Your task to perform on an android device: What's on my calendar today? Image 0: 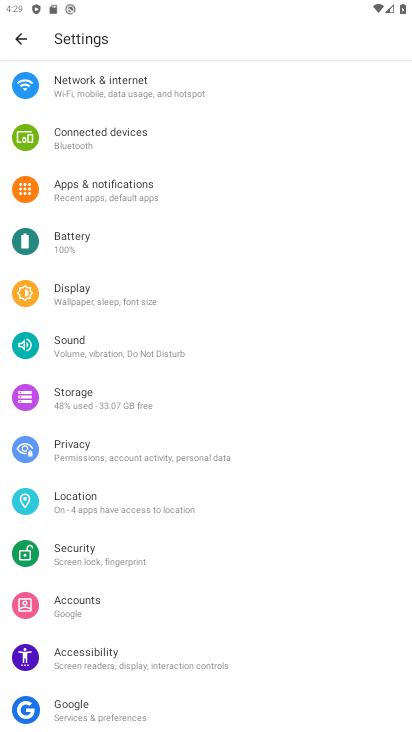
Step 0: press home button
Your task to perform on an android device: What's on my calendar today? Image 1: 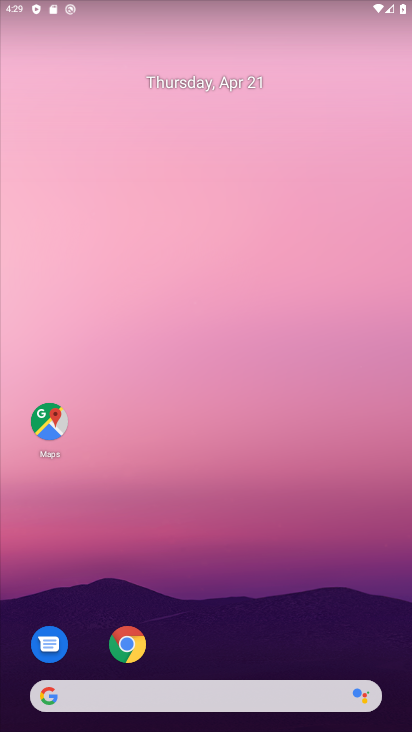
Step 1: drag from (231, 671) to (237, 308)
Your task to perform on an android device: What's on my calendar today? Image 2: 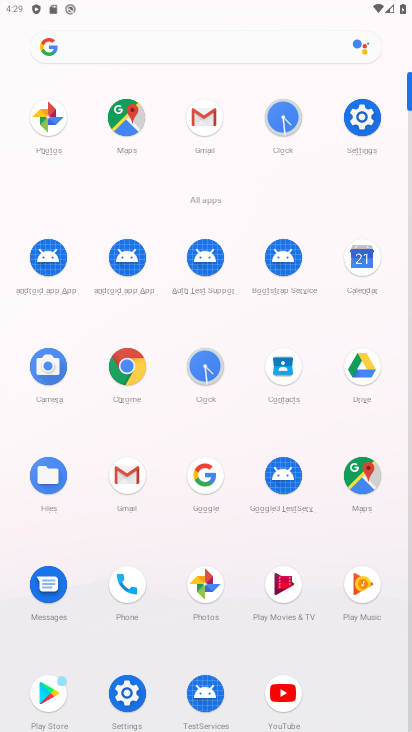
Step 2: click (365, 261)
Your task to perform on an android device: What's on my calendar today? Image 3: 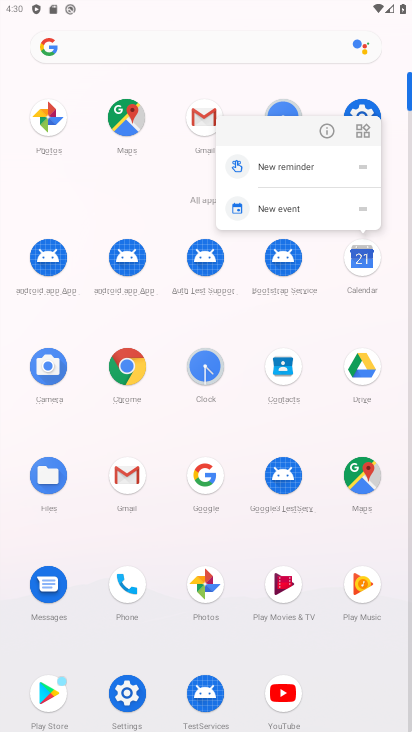
Step 3: click (359, 256)
Your task to perform on an android device: What's on my calendar today? Image 4: 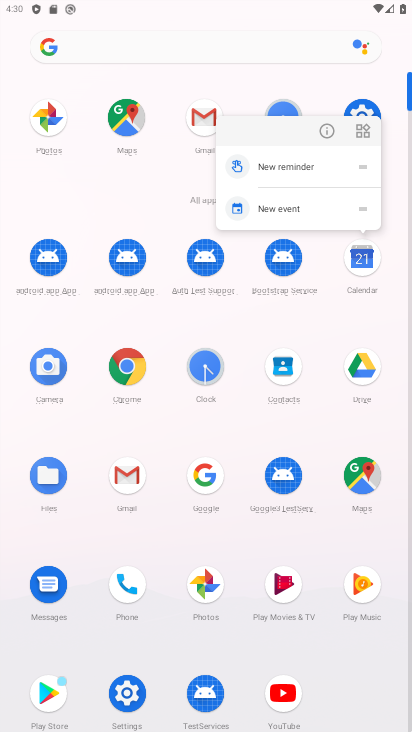
Step 4: click (364, 271)
Your task to perform on an android device: What's on my calendar today? Image 5: 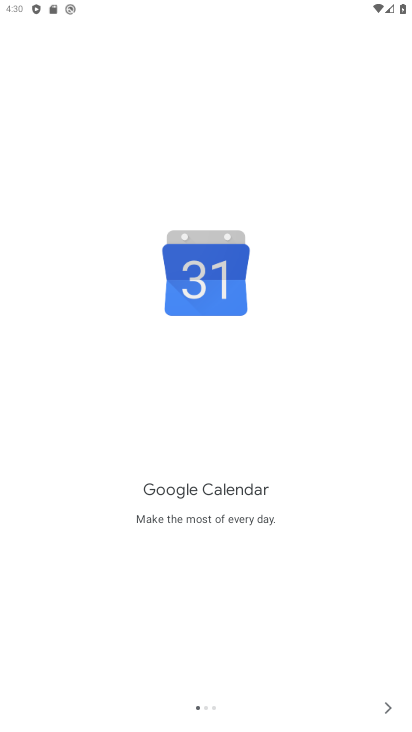
Step 5: click (382, 713)
Your task to perform on an android device: What's on my calendar today? Image 6: 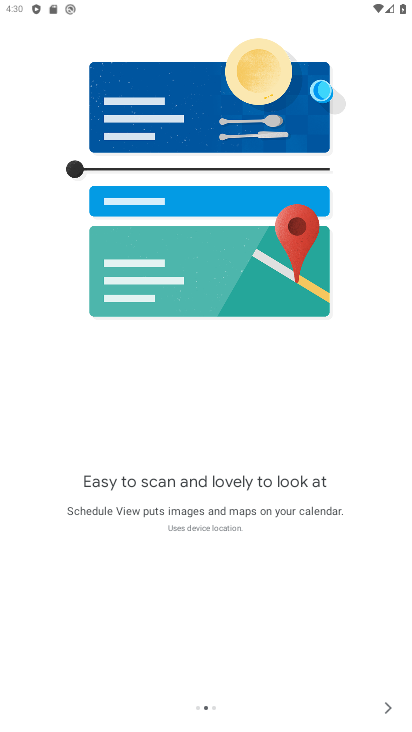
Step 6: click (387, 707)
Your task to perform on an android device: What's on my calendar today? Image 7: 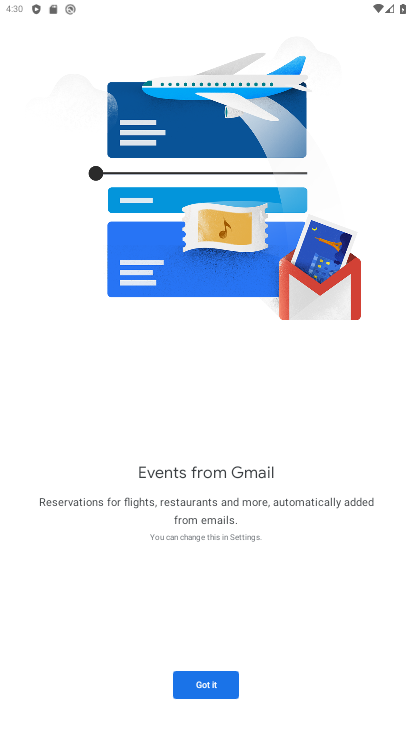
Step 7: click (212, 687)
Your task to perform on an android device: What's on my calendar today? Image 8: 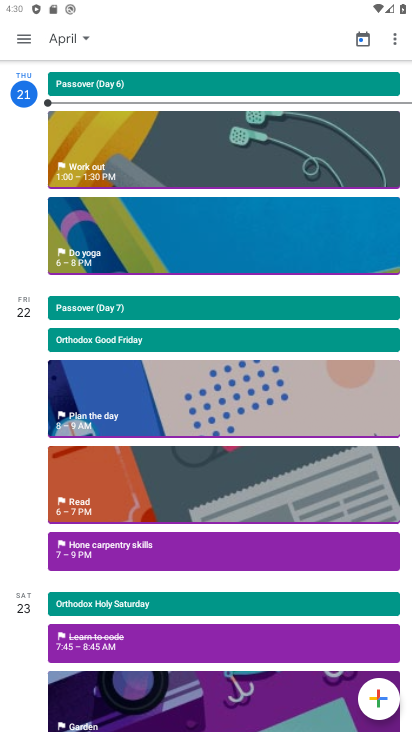
Step 8: drag from (161, 338) to (186, 160)
Your task to perform on an android device: What's on my calendar today? Image 9: 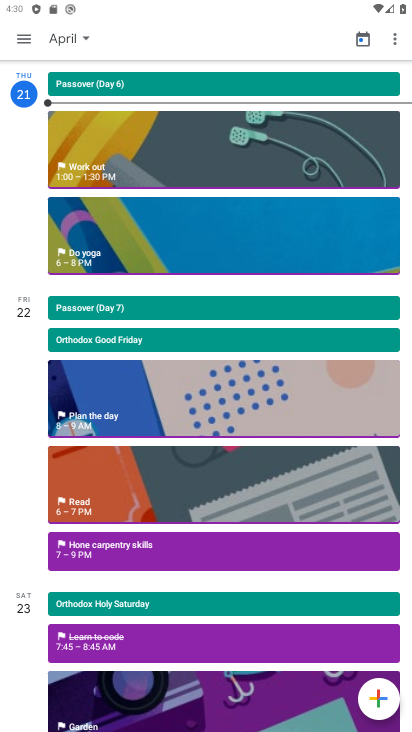
Step 9: click (203, 150)
Your task to perform on an android device: What's on my calendar today? Image 10: 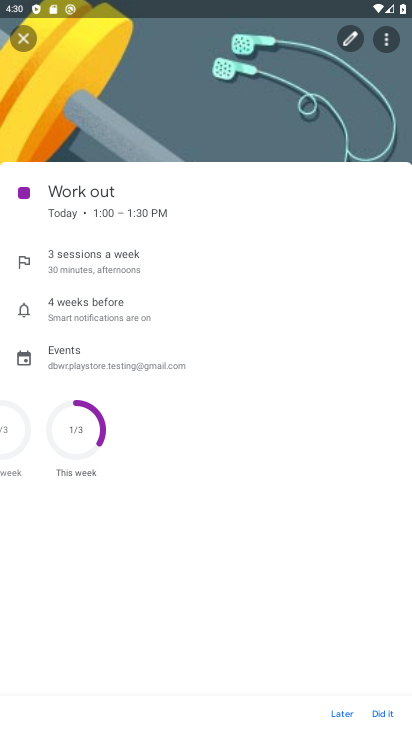
Step 10: click (99, 357)
Your task to perform on an android device: What's on my calendar today? Image 11: 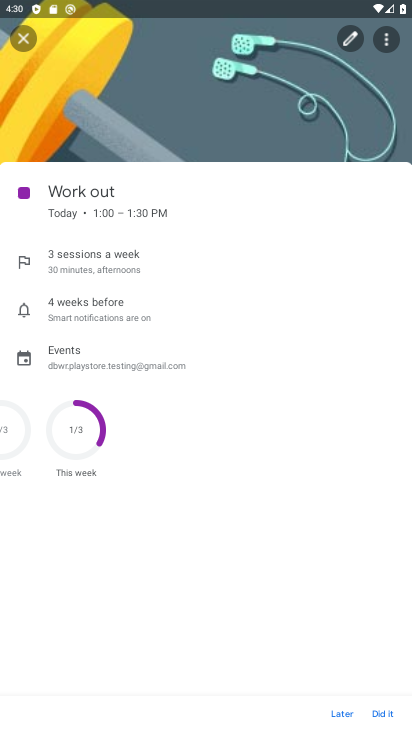
Step 11: task complete